Your task to perform on an android device: Who is the president of the United States? Image 0: 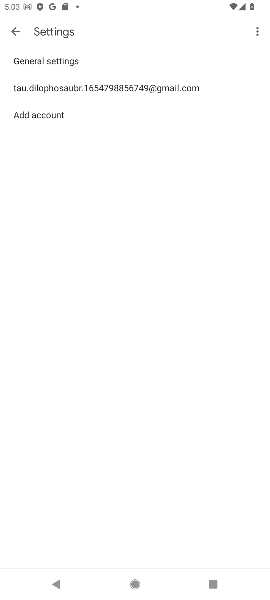
Step 0: press home button
Your task to perform on an android device: Who is the president of the United States? Image 1: 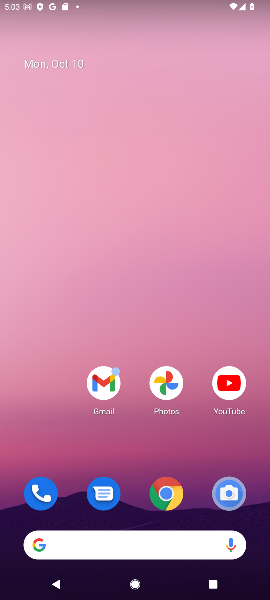
Step 1: click (167, 536)
Your task to perform on an android device: Who is the president of the United States? Image 2: 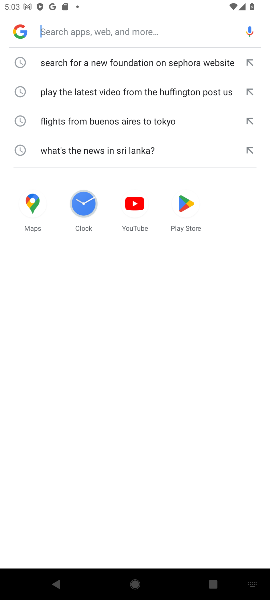
Step 2: type "Who is the president of the United States?"
Your task to perform on an android device: Who is the president of the United States? Image 3: 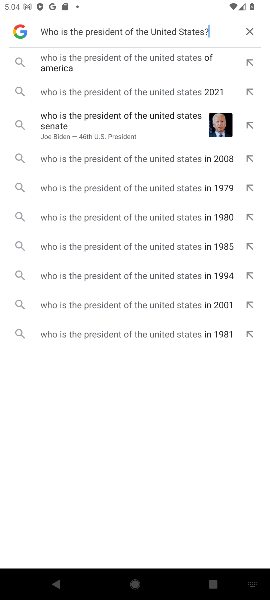
Step 3: click (117, 70)
Your task to perform on an android device: Who is the president of the United States? Image 4: 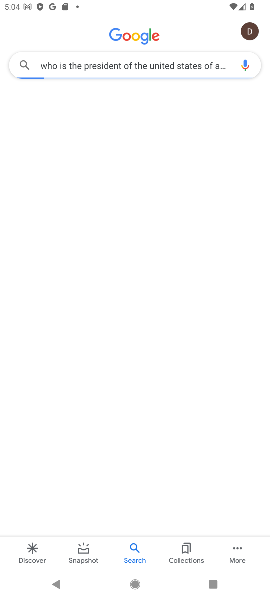
Step 4: task complete